Your task to perform on an android device: Check the news Image 0: 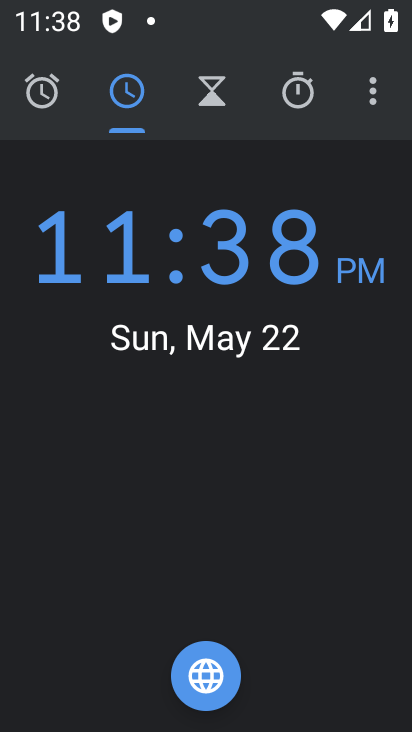
Step 0: press home button
Your task to perform on an android device: Check the news Image 1: 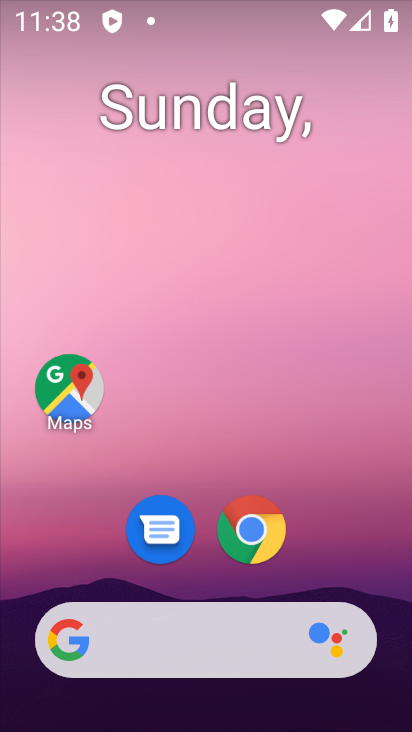
Step 1: task complete